Your task to perform on an android device: turn off wifi Image 0: 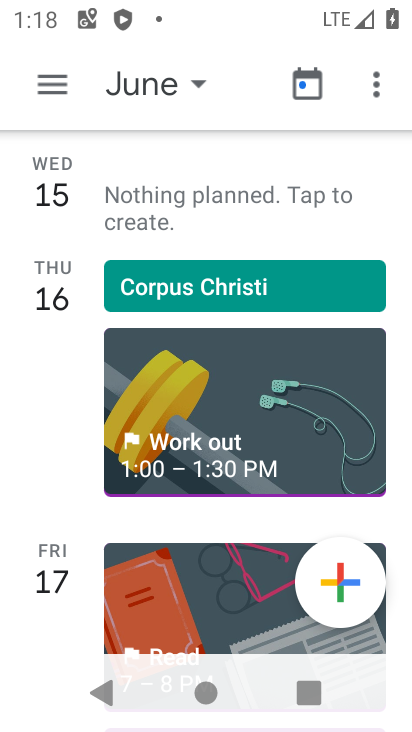
Step 0: press home button
Your task to perform on an android device: turn off wifi Image 1: 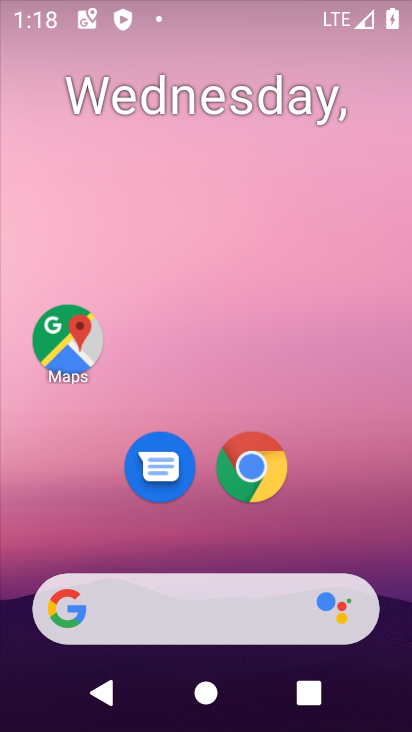
Step 1: drag from (228, 505) to (270, 160)
Your task to perform on an android device: turn off wifi Image 2: 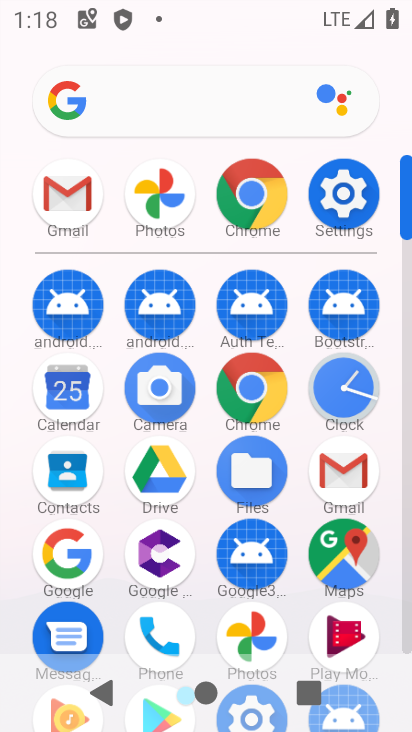
Step 2: click (339, 184)
Your task to perform on an android device: turn off wifi Image 3: 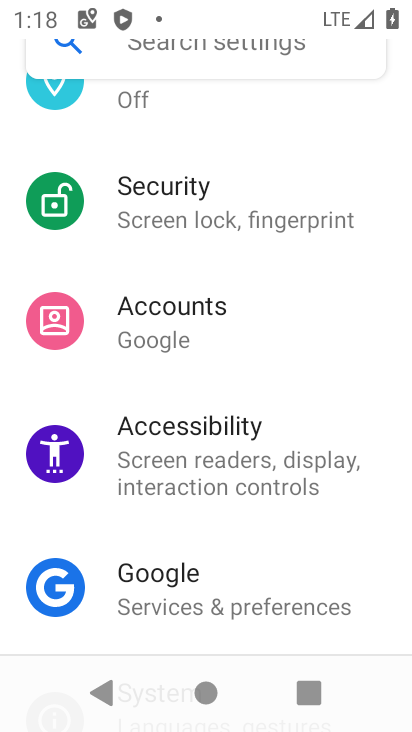
Step 3: drag from (247, 198) to (242, 572)
Your task to perform on an android device: turn off wifi Image 4: 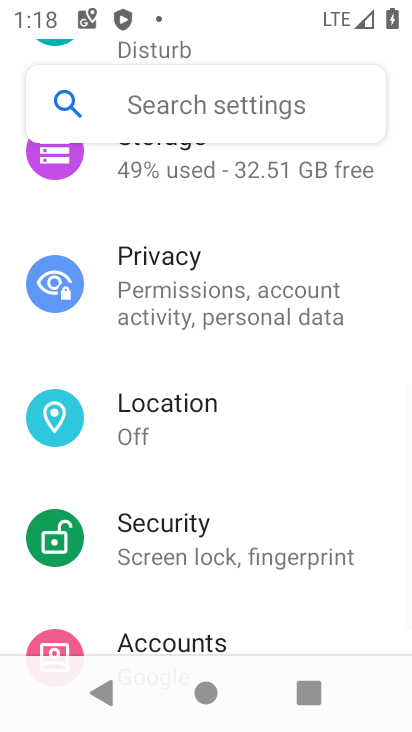
Step 4: drag from (239, 211) to (345, 630)
Your task to perform on an android device: turn off wifi Image 5: 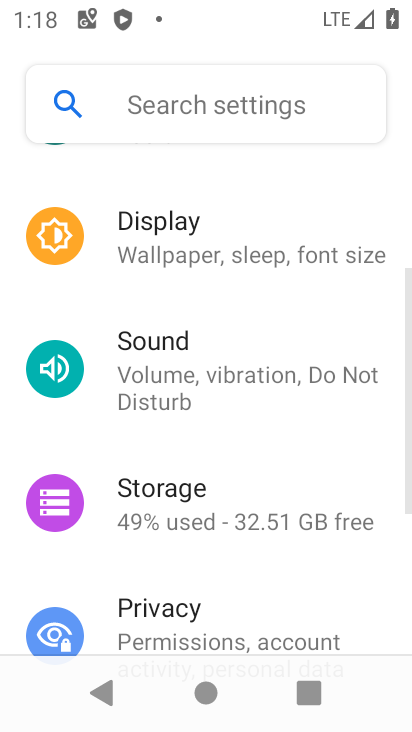
Step 5: drag from (235, 200) to (264, 620)
Your task to perform on an android device: turn off wifi Image 6: 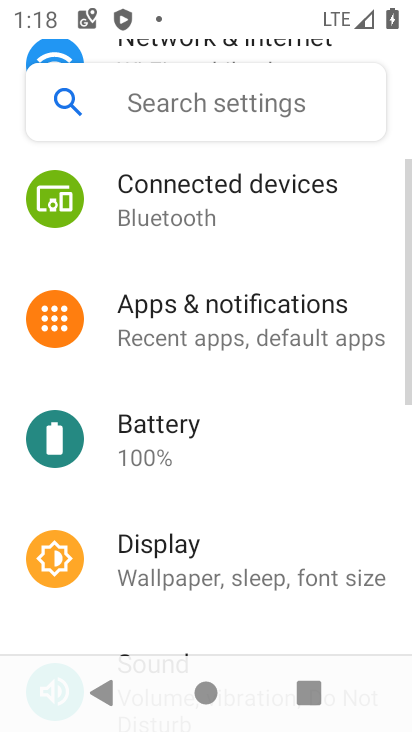
Step 6: drag from (256, 264) to (319, 663)
Your task to perform on an android device: turn off wifi Image 7: 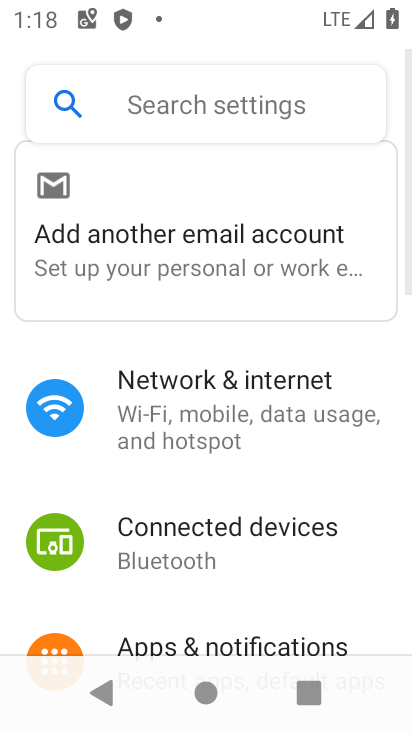
Step 7: click (223, 385)
Your task to perform on an android device: turn off wifi Image 8: 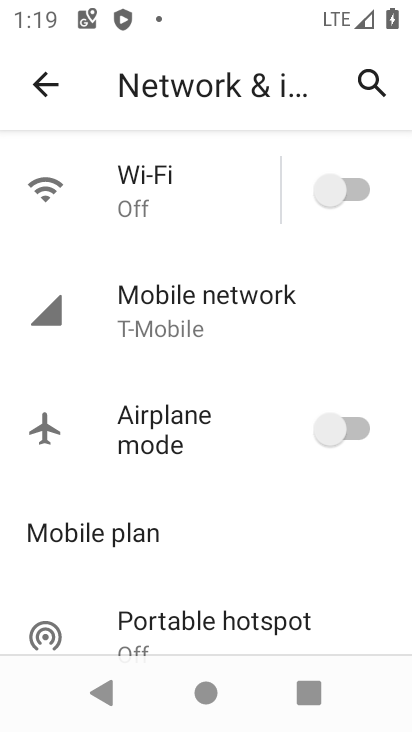
Step 8: task complete